Your task to perform on an android device: change the clock display to show seconds Image 0: 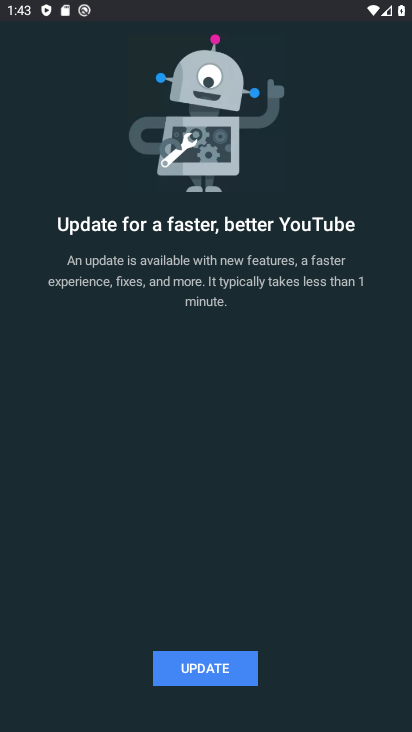
Step 0: press back button
Your task to perform on an android device: change the clock display to show seconds Image 1: 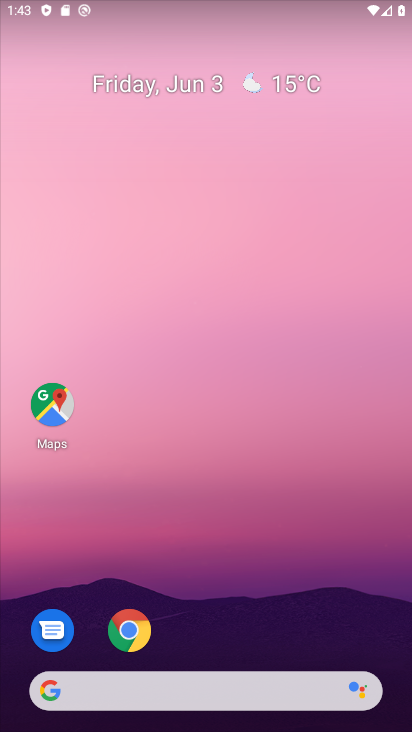
Step 1: click (405, 75)
Your task to perform on an android device: change the clock display to show seconds Image 2: 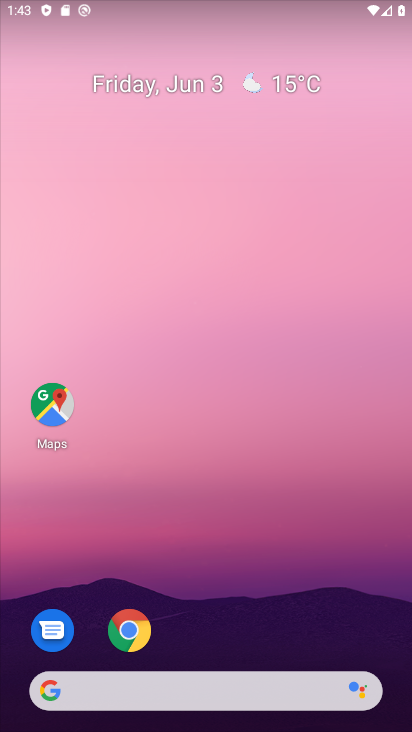
Step 2: drag from (395, 703) to (327, 70)
Your task to perform on an android device: change the clock display to show seconds Image 3: 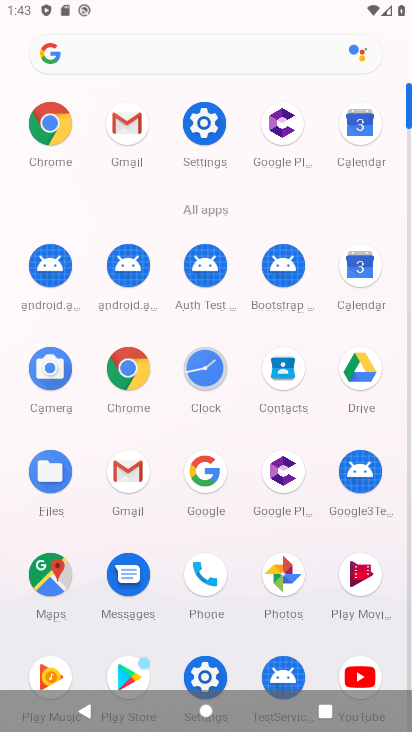
Step 3: click (202, 378)
Your task to perform on an android device: change the clock display to show seconds Image 4: 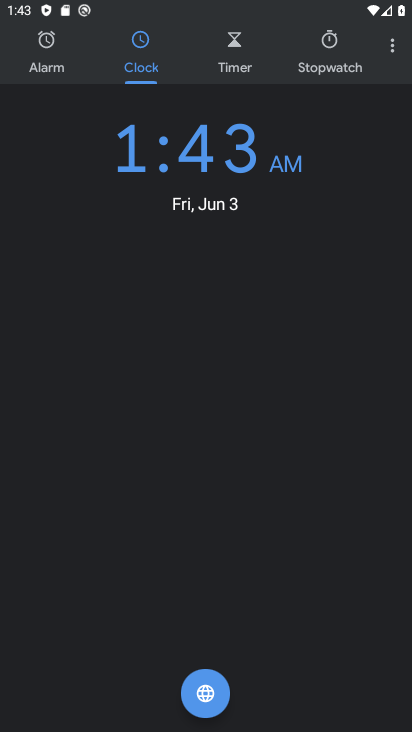
Step 4: click (396, 44)
Your task to perform on an android device: change the clock display to show seconds Image 5: 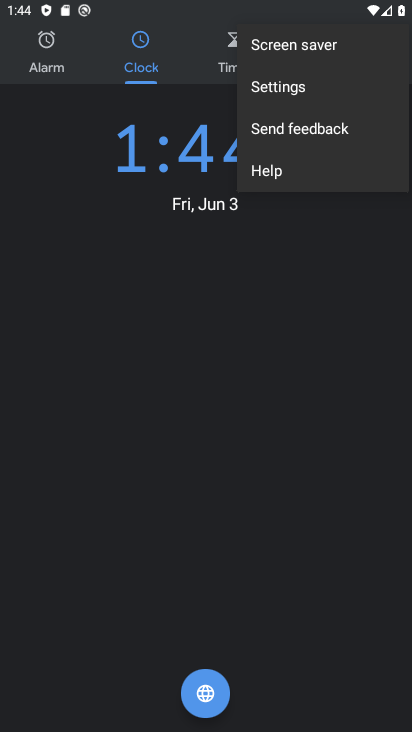
Step 5: click (274, 92)
Your task to perform on an android device: change the clock display to show seconds Image 6: 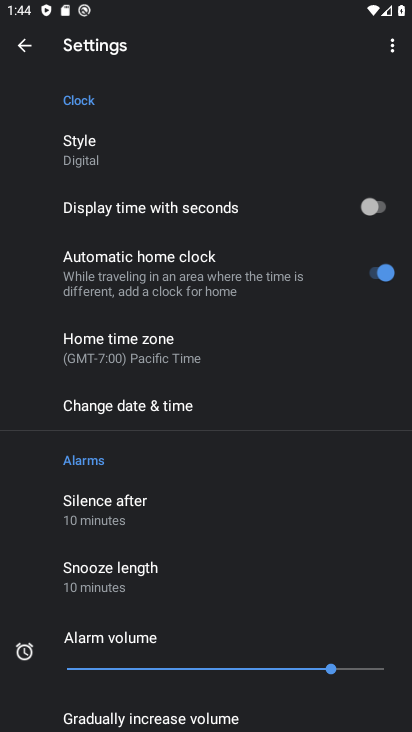
Step 6: click (378, 215)
Your task to perform on an android device: change the clock display to show seconds Image 7: 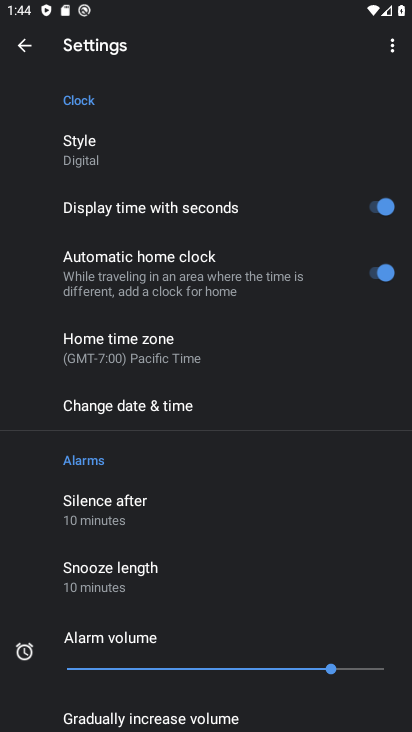
Step 7: task complete